Your task to perform on an android device: Open the map Image 0: 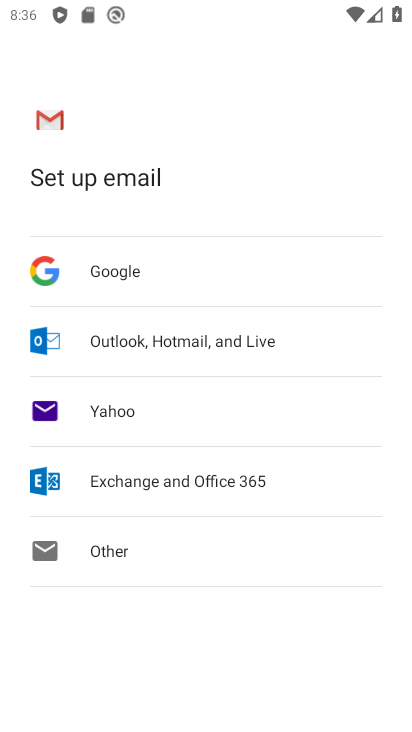
Step 0: press home button
Your task to perform on an android device: Open the map Image 1: 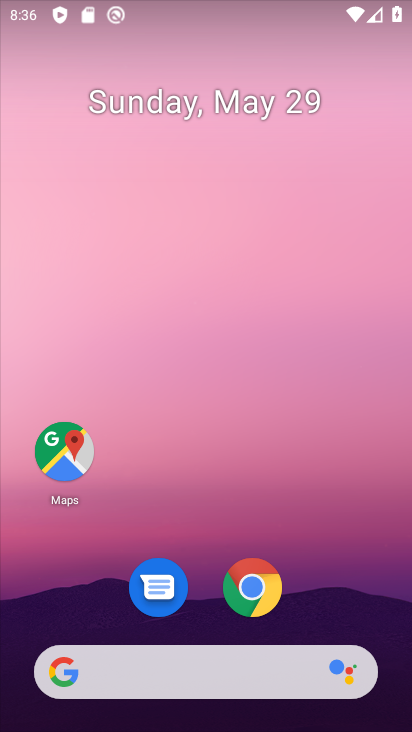
Step 1: click (62, 445)
Your task to perform on an android device: Open the map Image 2: 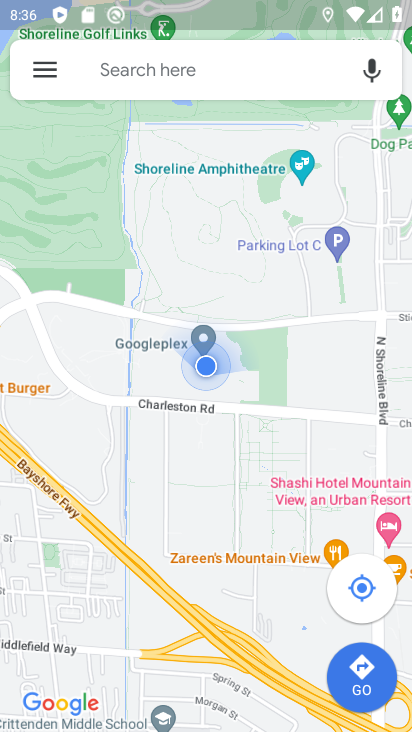
Step 2: task complete